Your task to perform on an android device: snooze an email in the gmail app Image 0: 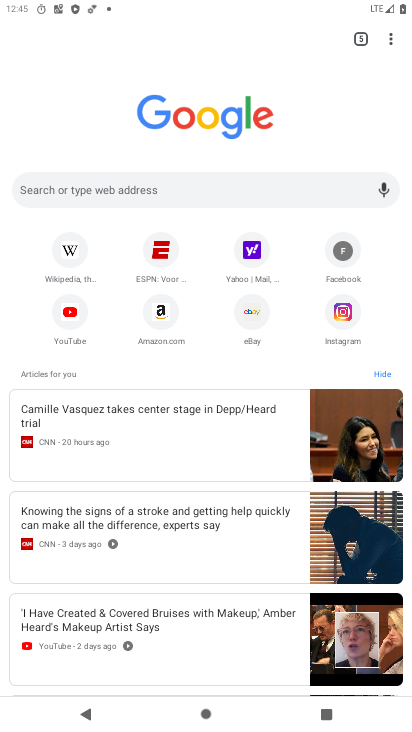
Step 0: press home button
Your task to perform on an android device: snooze an email in the gmail app Image 1: 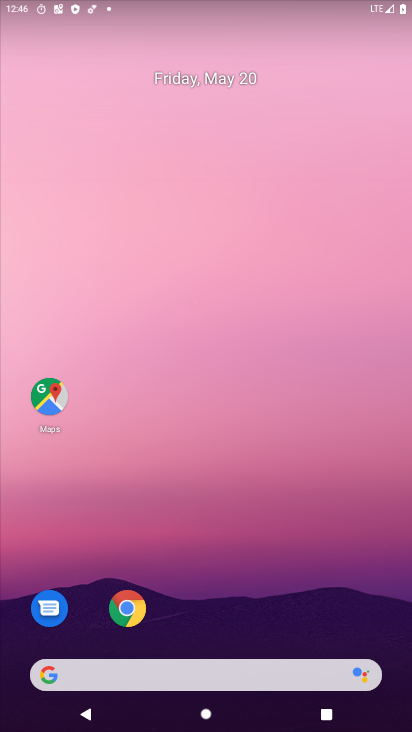
Step 1: drag from (352, 609) to (319, 140)
Your task to perform on an android device: snooze an email in the gmail app Image 2: 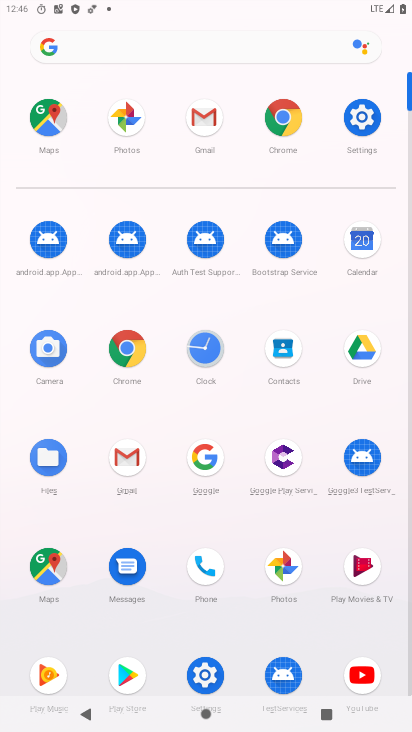
Step 2: click (127, 466)
Your task to perform on an android device: snooze an email in the gmail app Image 3: 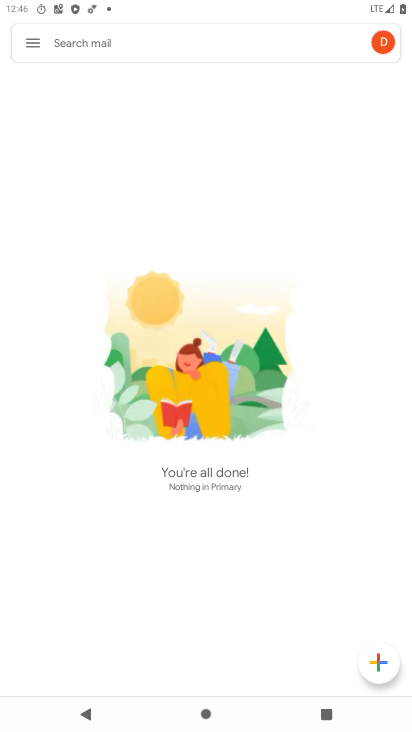
Step 3: click (36, 49)
Your task to perform on an android device: snooze an email in the gmail app Image 4: 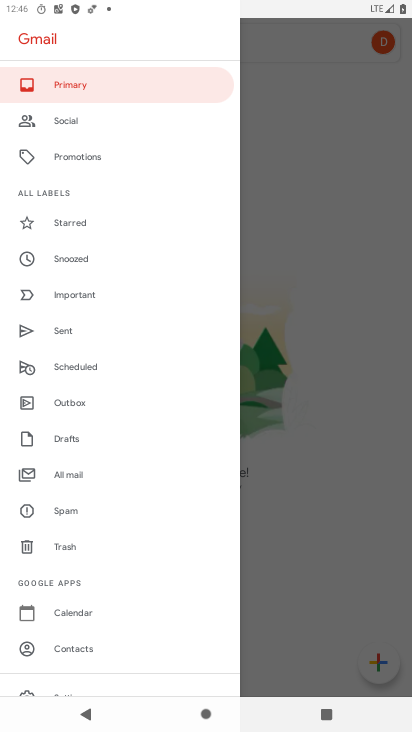
Step 4: click (80, 261)
Your task to perform on an android device: snooze an email in the gmail app Image 5: 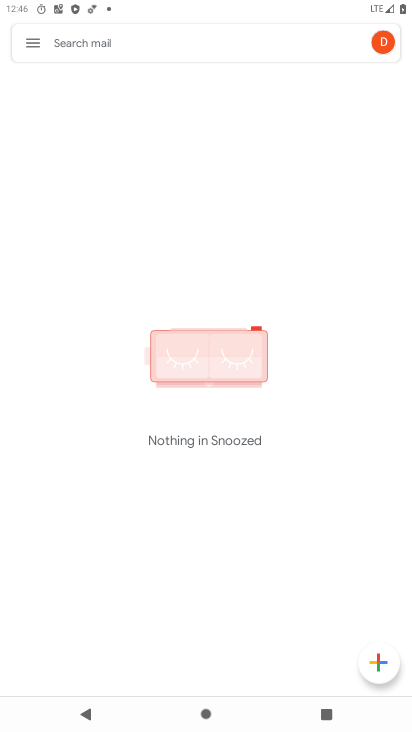
Step 5: task complete